Your task to perform on an android device: refresh tabs in the chrome app Image 0: 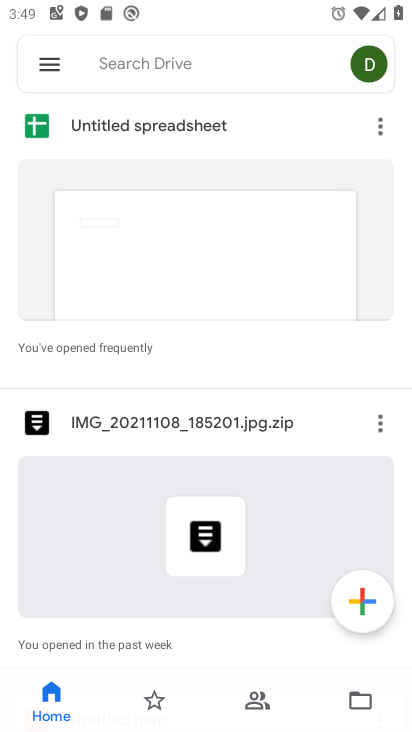
Step 0: press home button
Your task to perform on an android device: refresh tabs in the chrome app Image 1: 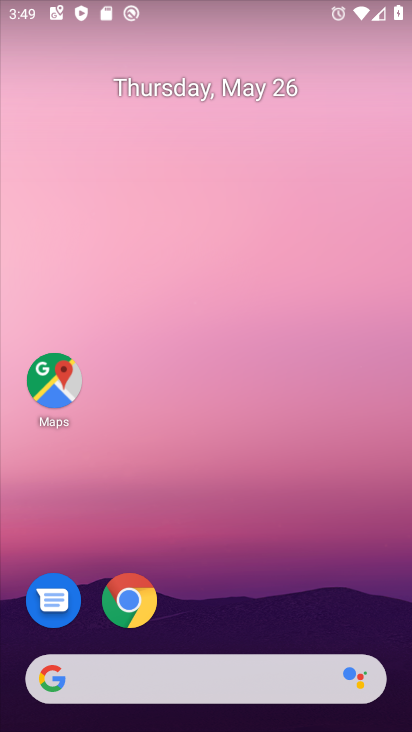
Step 1: drag from (204, 578) to (226, 87)
Your task to perform on an android device: refresh tabs in the chrome app Image 2: 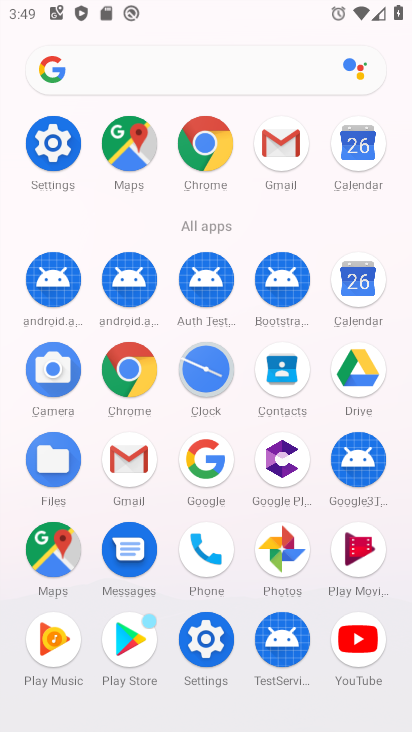
Step 2: click (209, 174)
Your task to perform on an android device: refresh tabs in the chrome app Image 3: 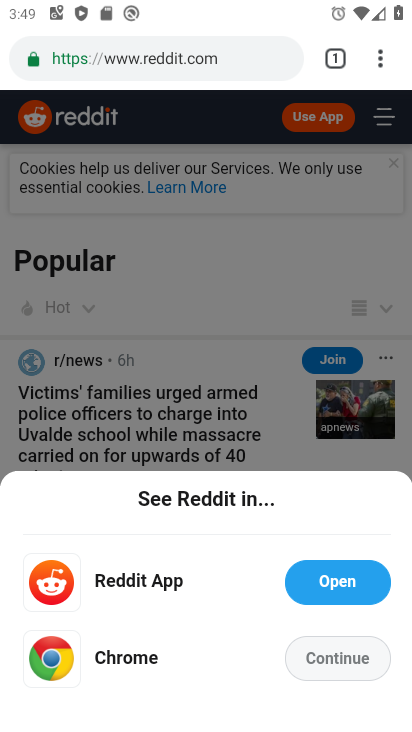
Step 3: click (383, 61)
Your task to perform on an android device: refresh tabs in the chrome app Image 4: 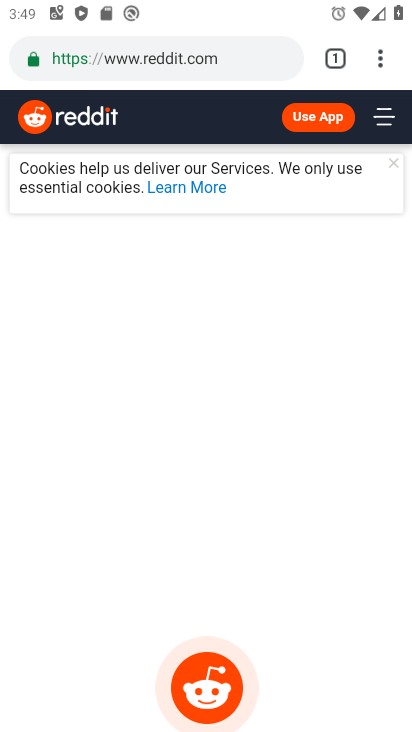
Step 4: click (377, 69)
Your task to perform on an android device: refresh tabs in the chrome app Image 5: 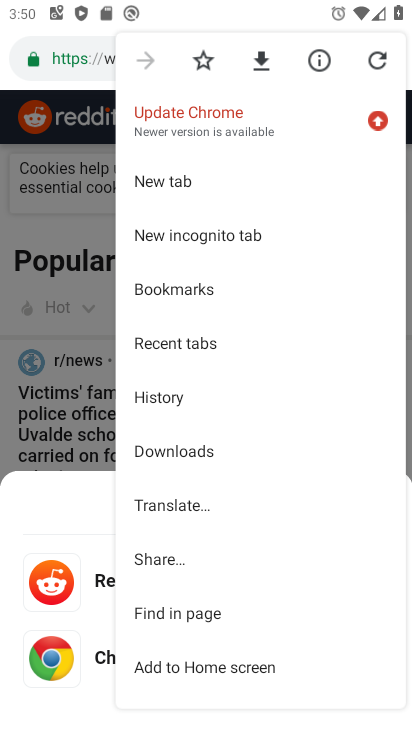
Step 5: click (192, 348)
Your task to perform on an android device: refresh tabs in the chrome app Image 6: 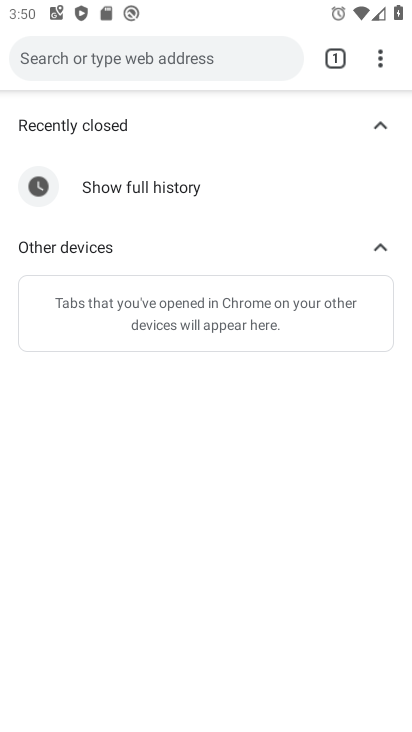
Step 6: task complete